Your task to perform on an android device: Open maps Image 0: 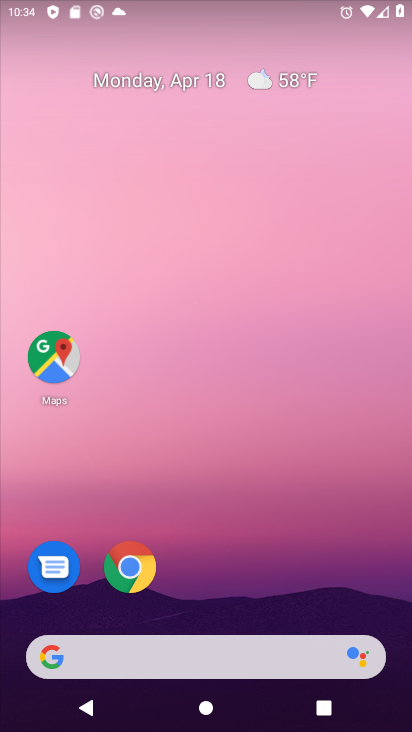
Step 0: drag from (210, 727) to (208, 196)
Your task to perform on an android device: Open maps Image 1: 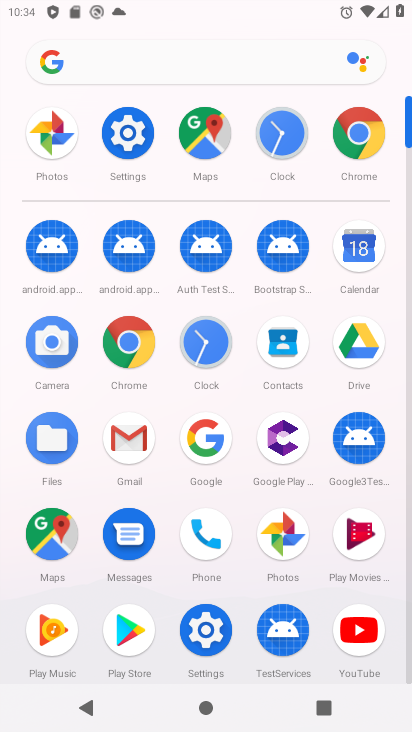
Step 1: click (53, 534)
Your task to perform on an android device: Open maps Image 2: 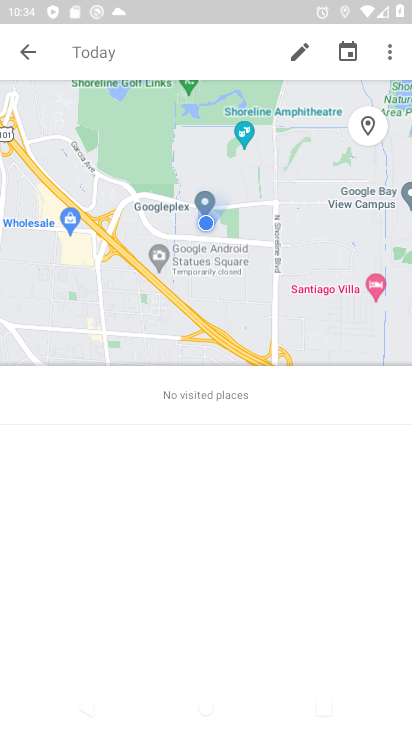
Step 2: task complete